Your task to perform on an android device: change keyboard looks Image 0: 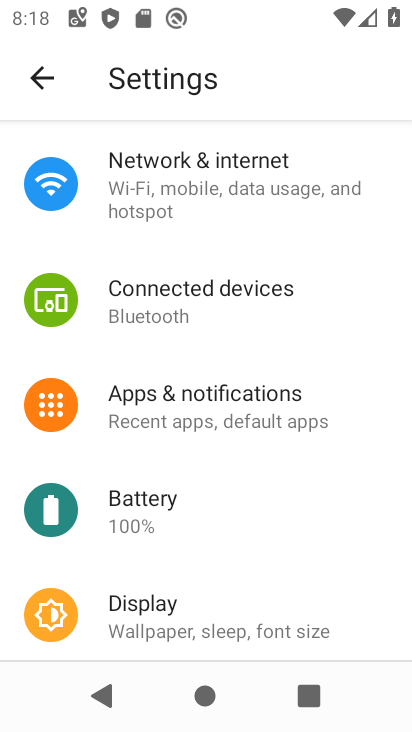
Step 0: drag from (178, 537) to (131, 120)
Your task to perform on an android device: change keyboard looks Image 1: 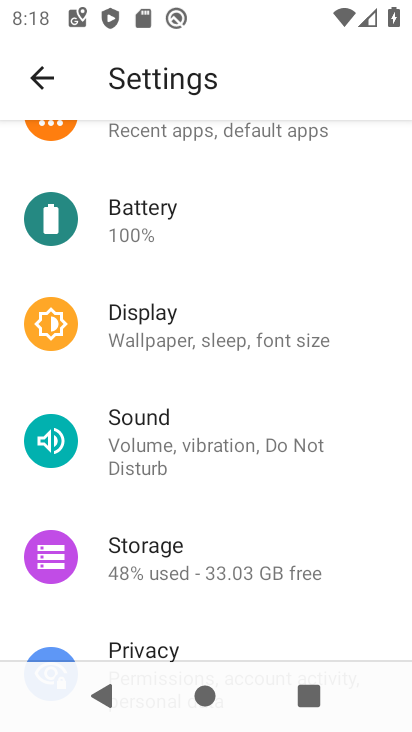
Step 1: drag from (236, 590) to (244, 195)
Your task to perform on an android device: change keyboard looks Image 2: 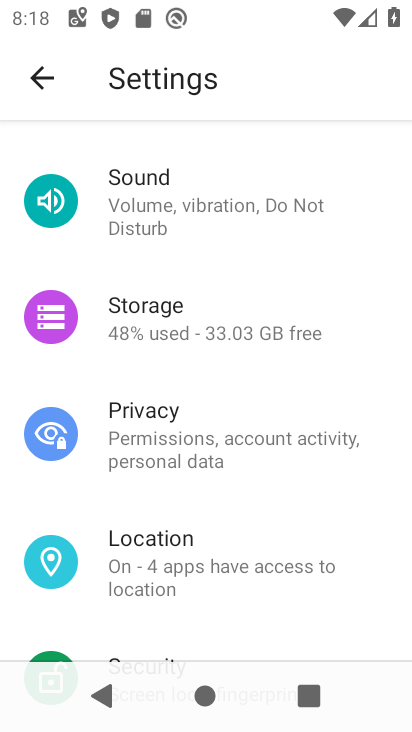
Step 2: drag from (226, 545) to (208, 65)
Your task to perform on an android device: change keyboard looks Image 3: 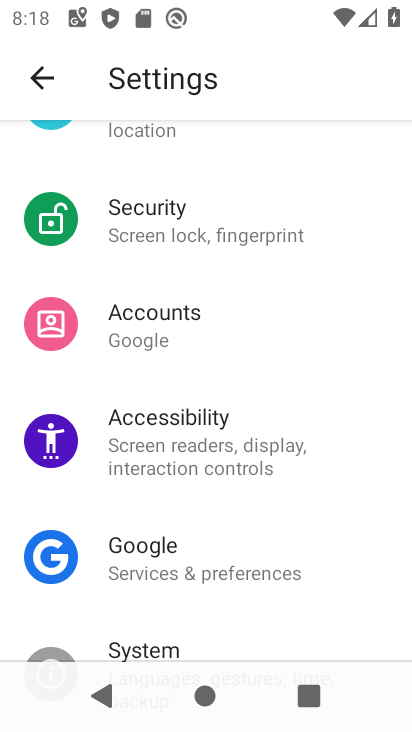
Step 3: click (172, 642)
Your task to perform on an android device: change keyboard looks Image 4: 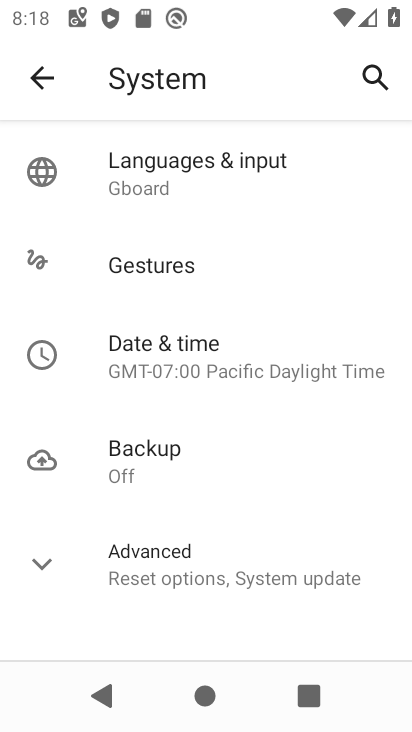
Step 4: click (222, 177)
Your task to perform on an android device: change keyboard looks Image 5: 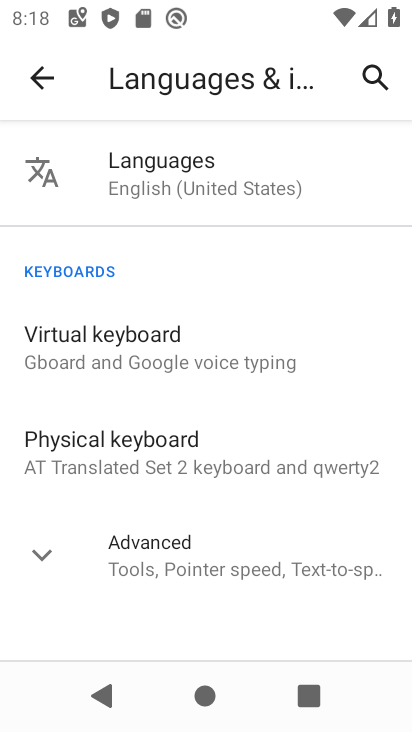
Step 5: click (182, 344)
Your task to perform on an android device: change keyboard looks Image 6: 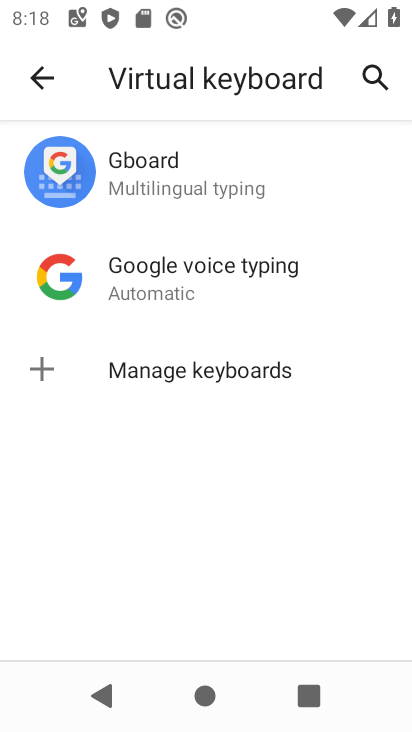
Step 6: click (224, 185)
Your task to perform on an android device: change keyboard looks Image 7: 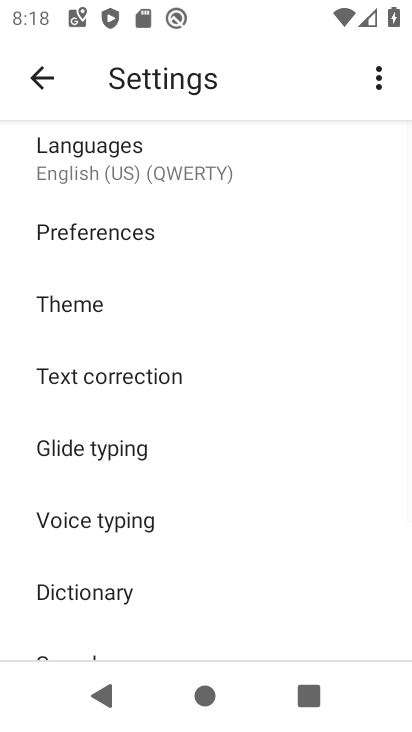
Step 7: click (143, 286)
Your task to perform on an android device: change keyboard looks Image 8: 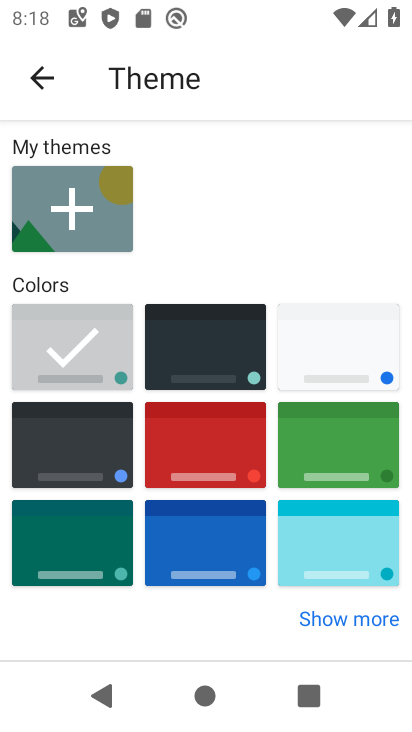
Step 8: click (231, 329)
Your task to perform on an android device: change keyboard looks Image 9: 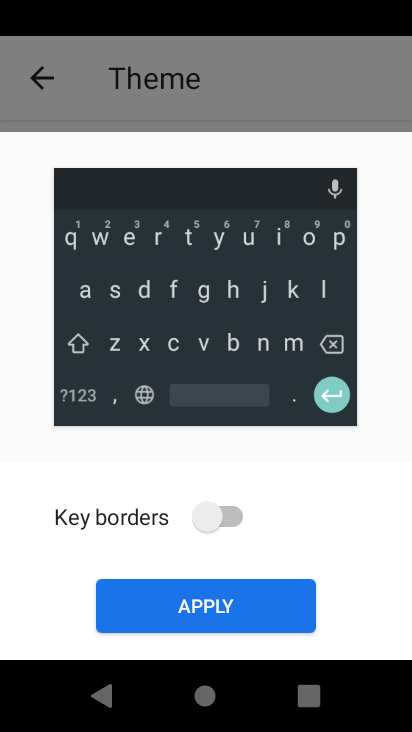
Step 9: task complete